Your task to perform on an android device: Search for usb-a to usb-b on bestbuy, select the first entry, and add it to the cart. Image 0: 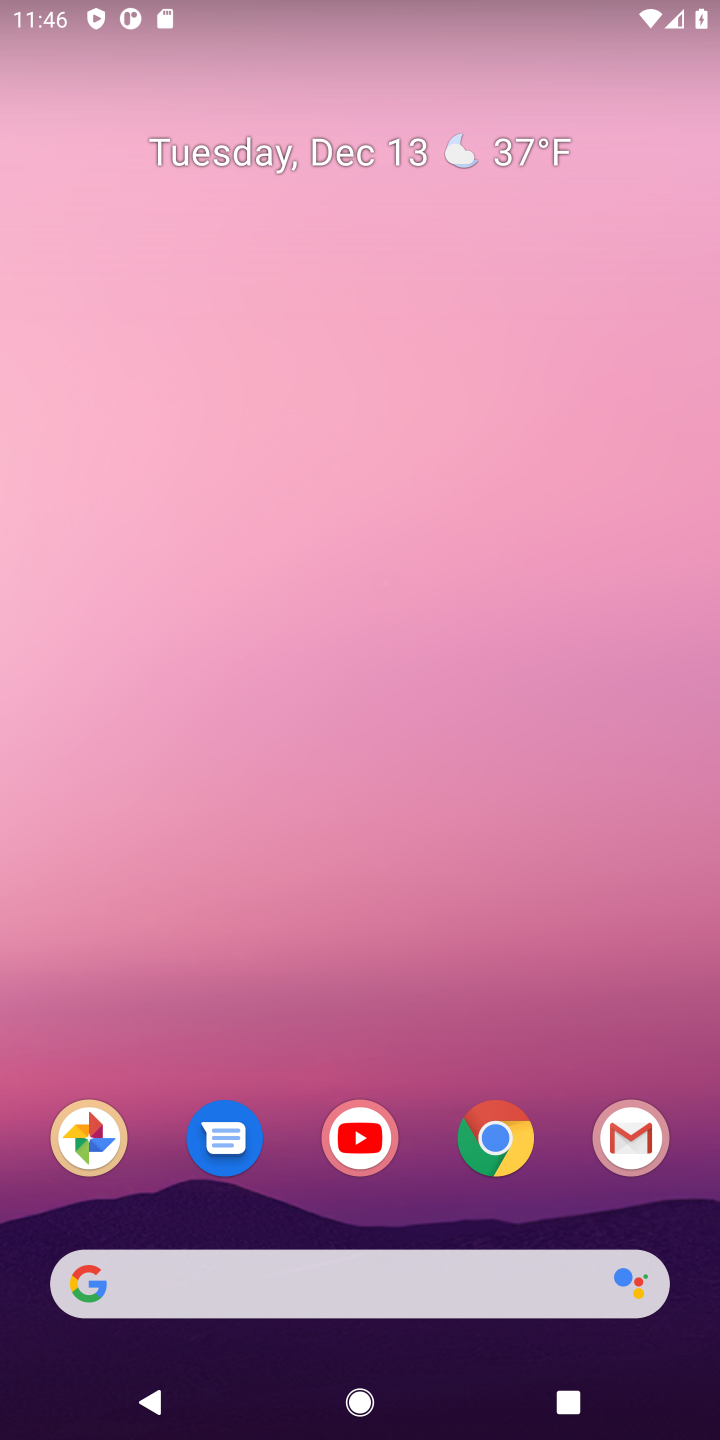
Step 0: click (466, 1141)
Your task to perform on an android device: Search for usb-a to usb-b on bestbuy, select the first entry, and add it to the cart. Image 1: 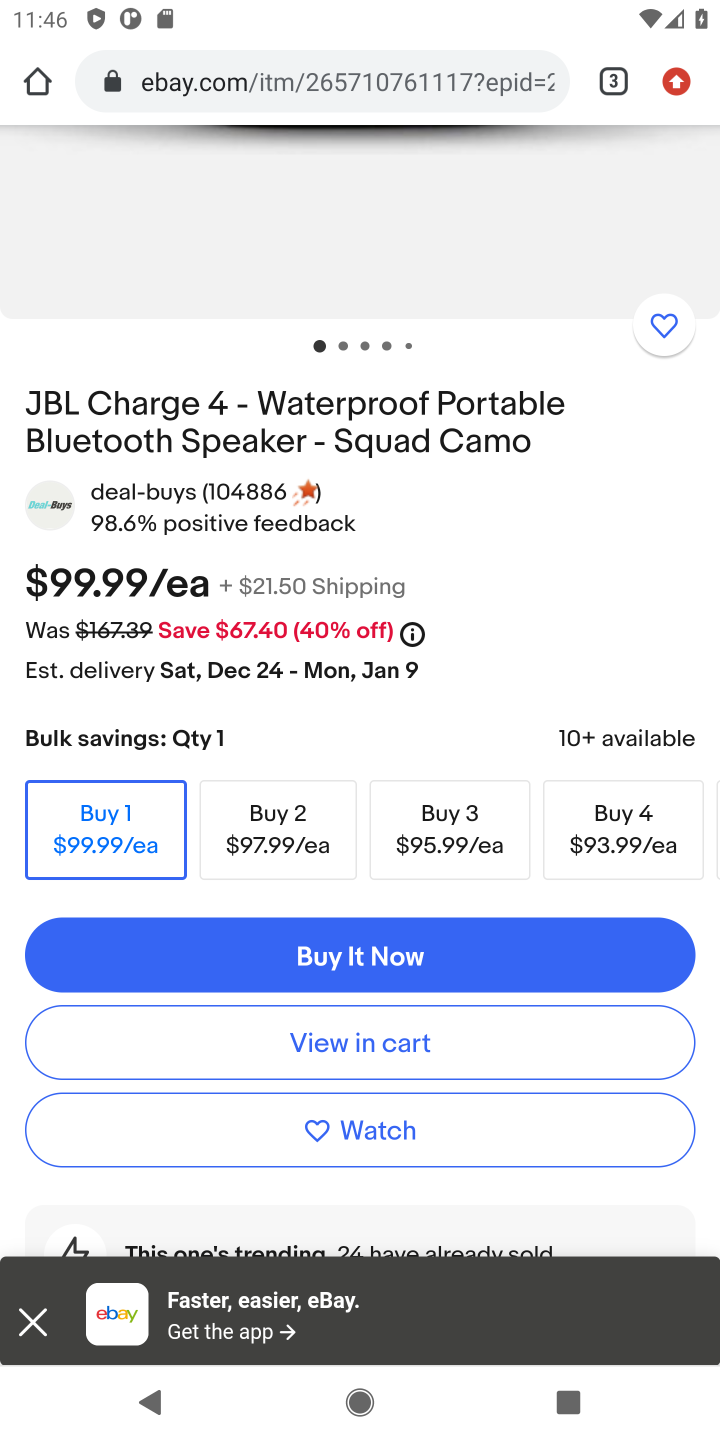
Step 1: click (614, 73)
Your task to perform on an android device: Search for usb-a to usb-b on bestbuy, select the first entry, and add it to the cart. Image 2: 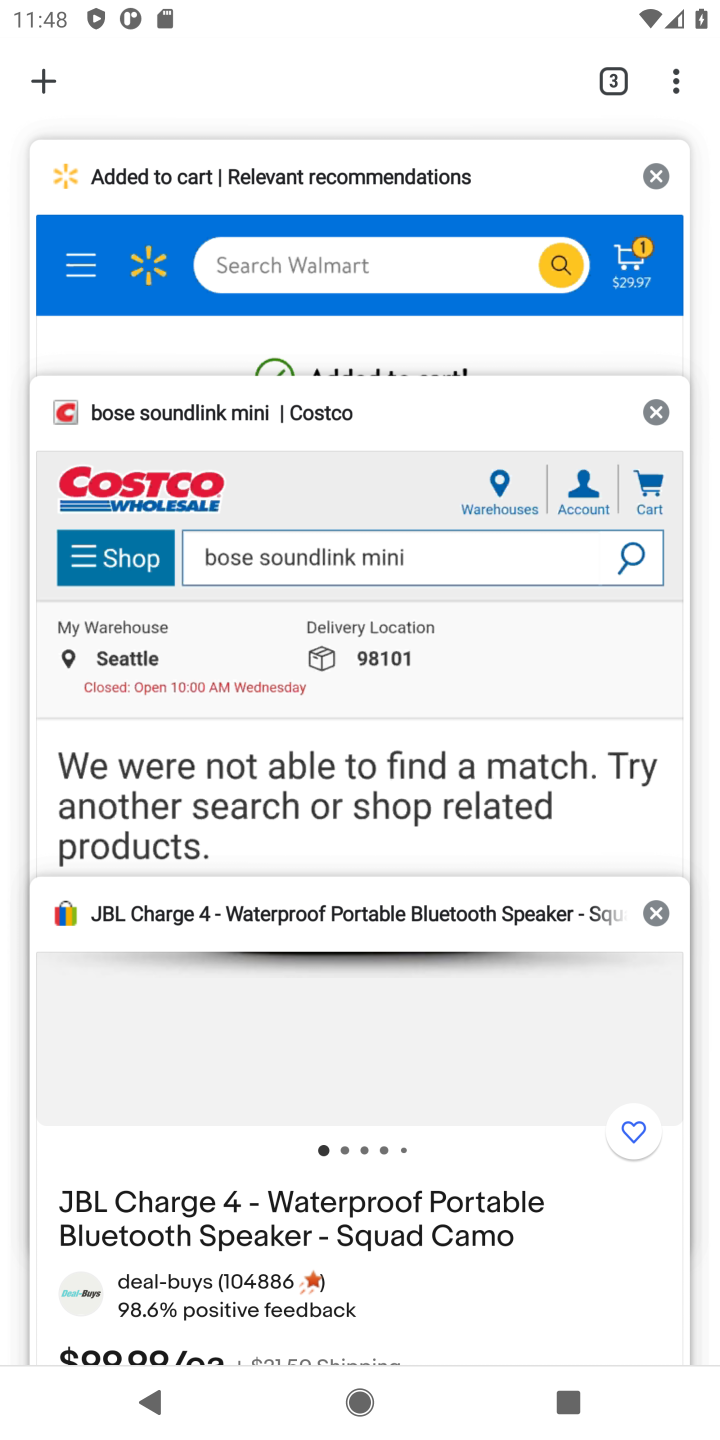
Step 2: click (43, 70)
Your task to perform on an android device: Search for usb-a to usb-b on bestbuy, select the first entry, and add it to the cart. Image 3: 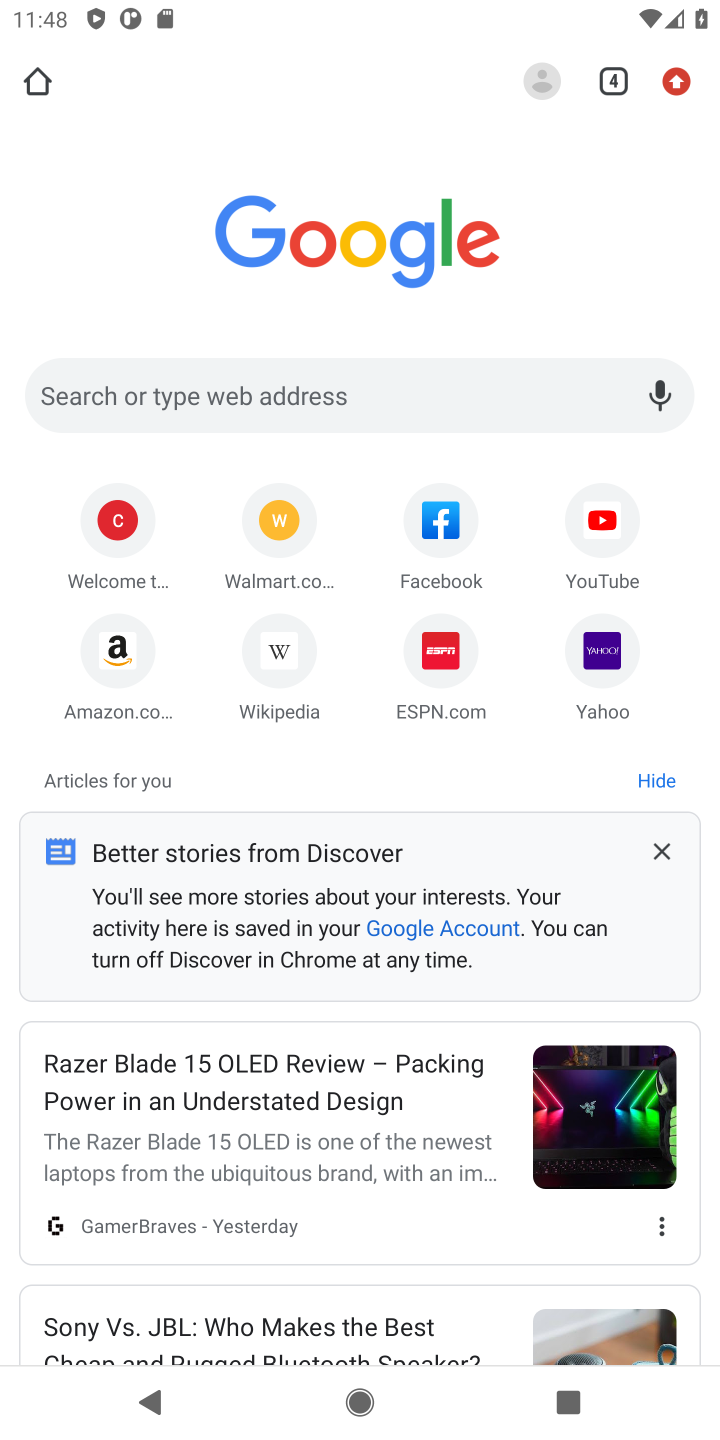
Step 3: click (236, 392)
Your task to perform on an android device: Search for usb-a to usb-b on bestbuy, select the first entry, and add it to the cart. Image 4: 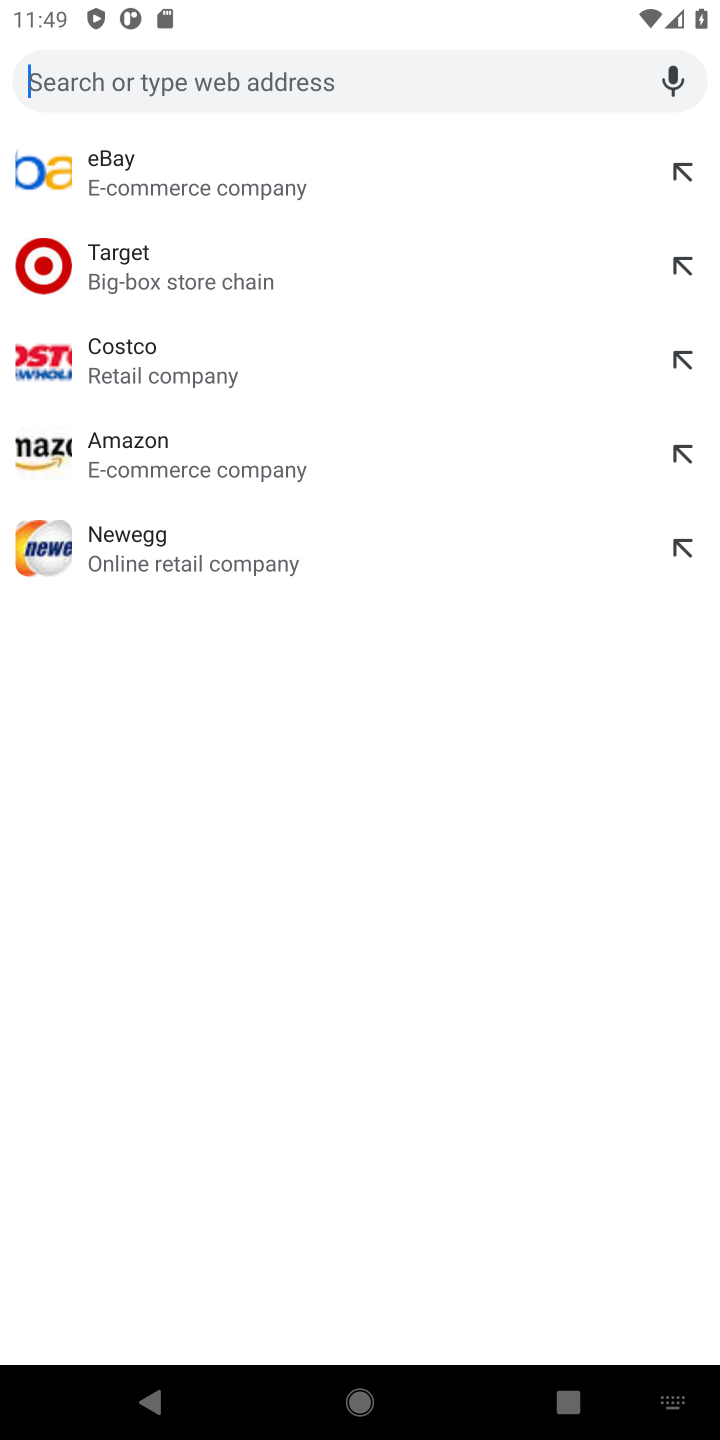
Step 4: type "bestbuy"
Your task to perform on an android device: Search for usb-a to usb-b on bestbuy, select the first entry, and add it to the cart. Image 5: 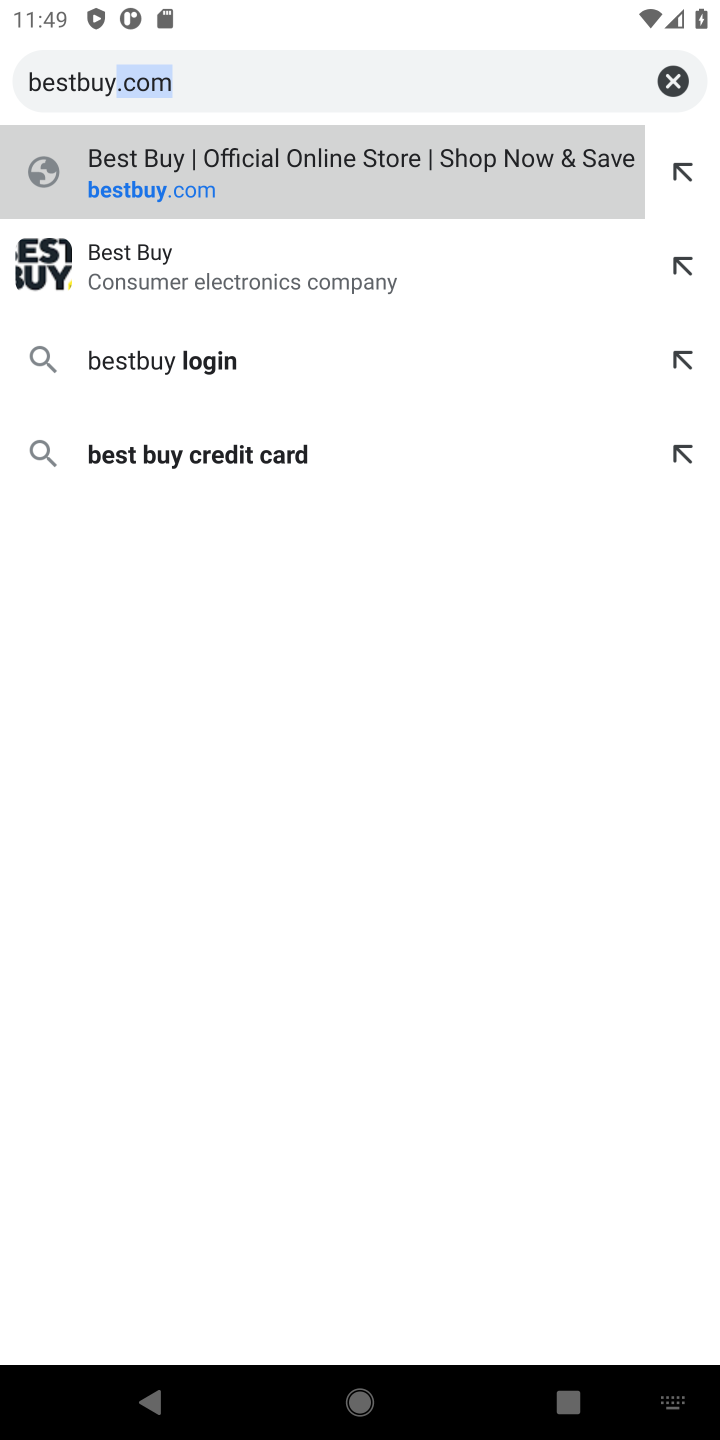
Step 5: click (349, 201)
Your task to perform on an android device: Search for usb-a to usb-b on bestbuy, select the first entry, and add it to the cart. Image 6: 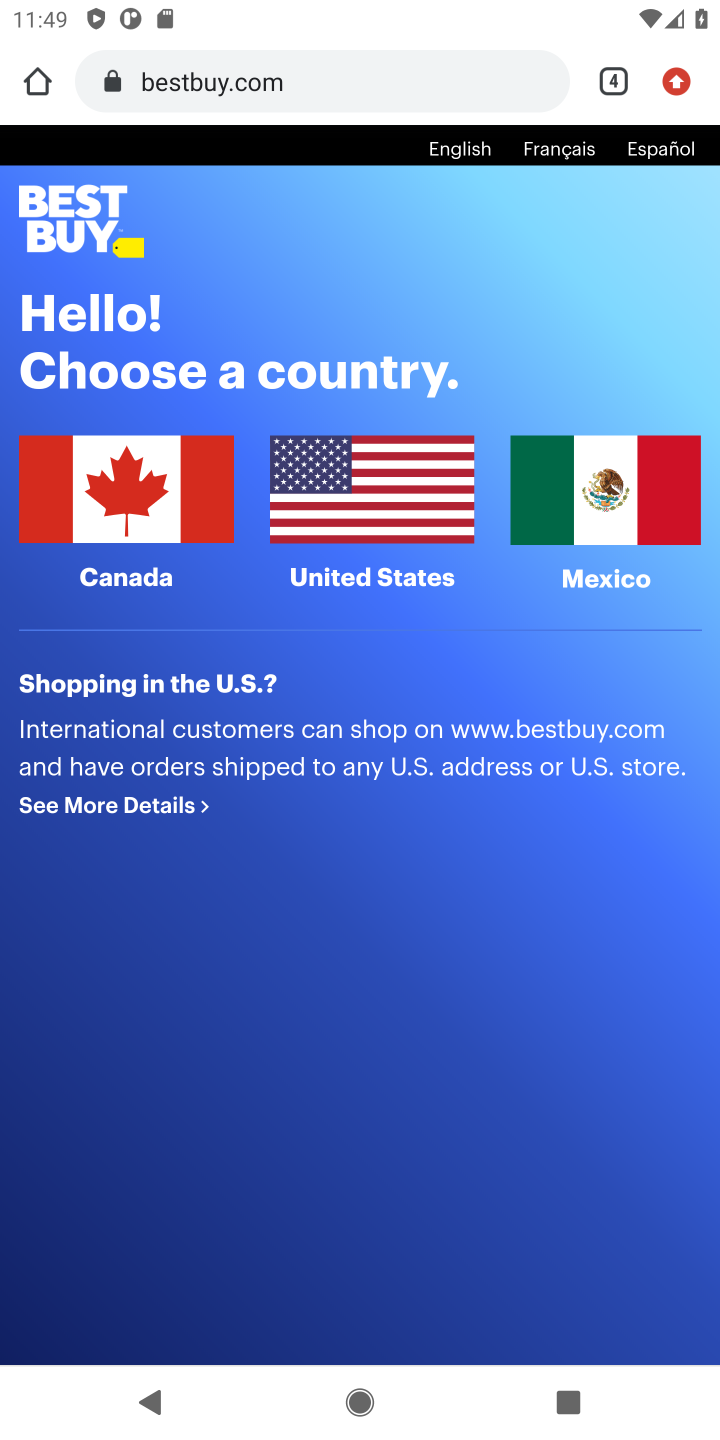
Step 6: click (337, 456)
Your task to perform on an android device: Search for usb-a to usb-b on bestbuy, select the first entry, and add it to the cart. Image 7: 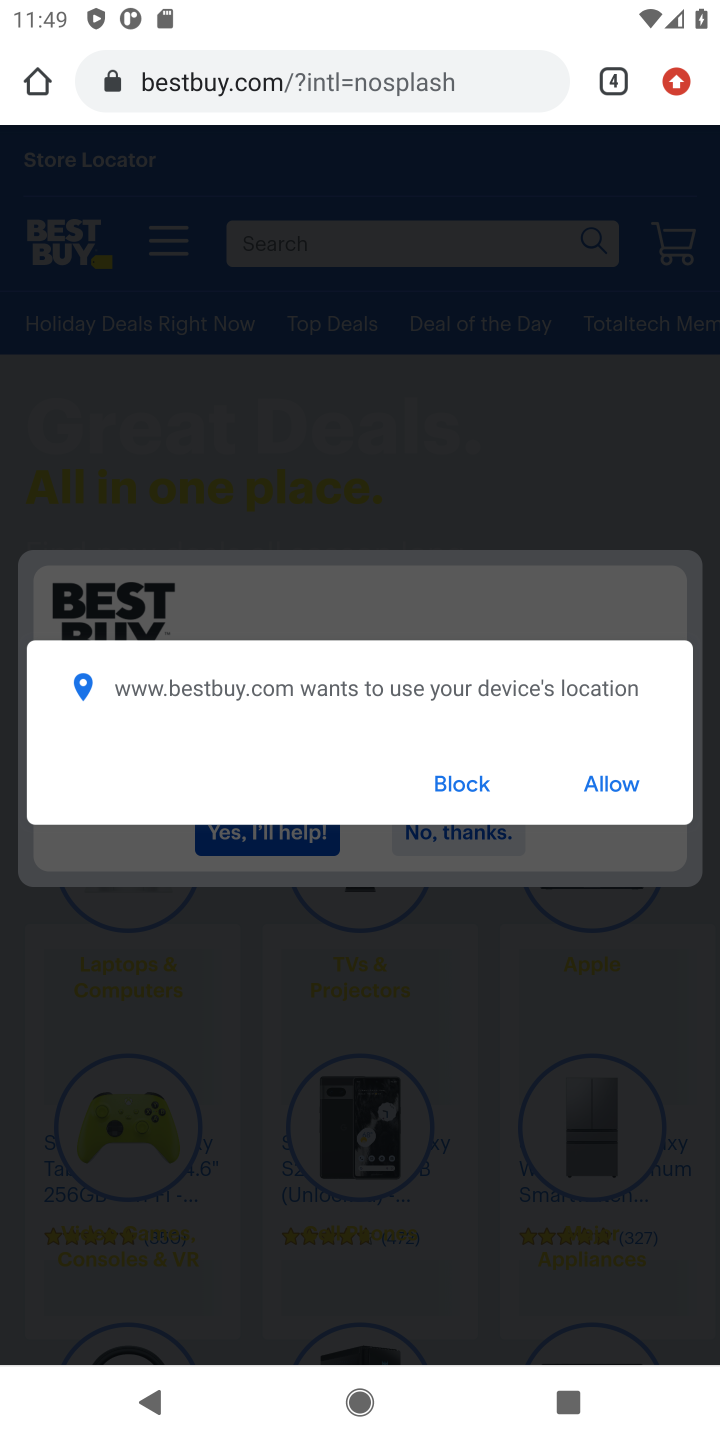
Step 7: click (467, 784)
Your task to perform on an android device: Search for usb-a to usb-b on bestbuy, select the first entry, and add it to the cart. Image 8: 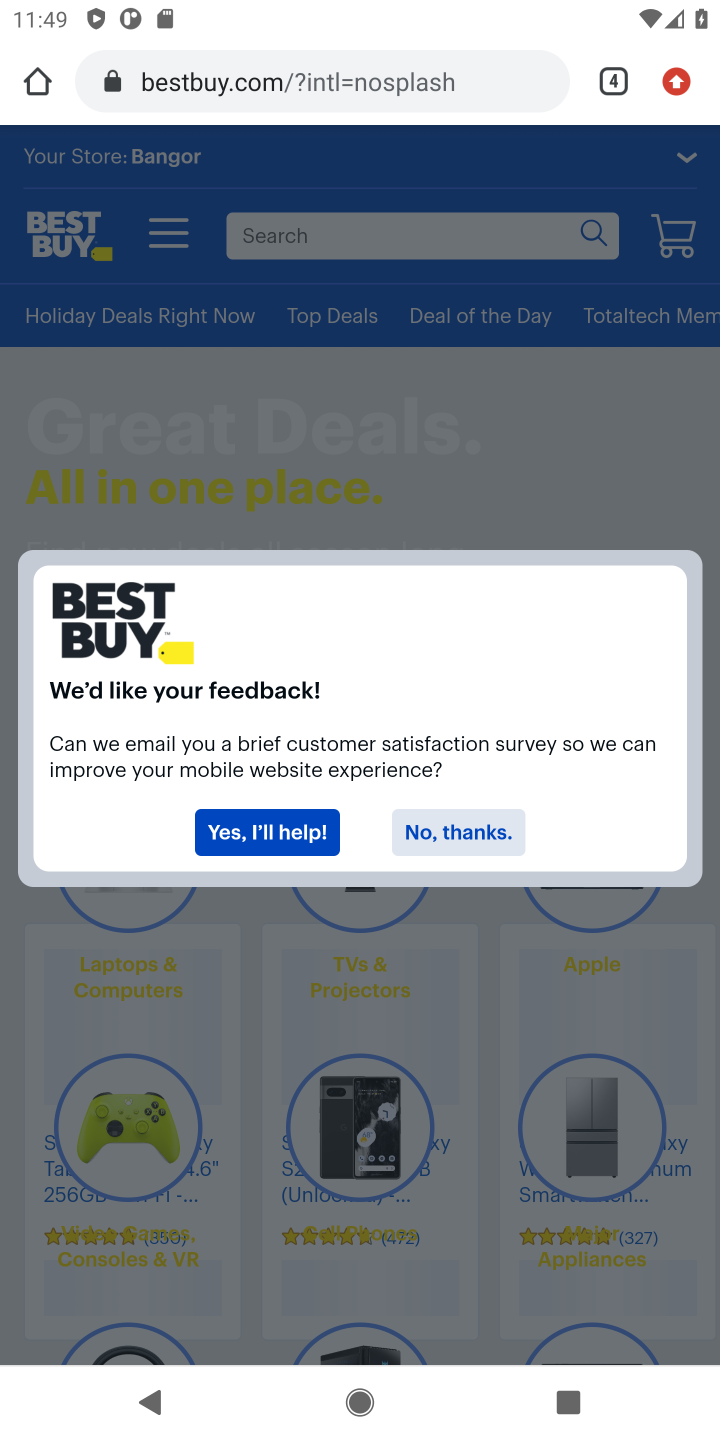
Step 8: click (411, 840)
Your task to perform on an android device: Search for usb-a to usb-b on bestbuy, select the first entry, and add it to the cart. Image 9: 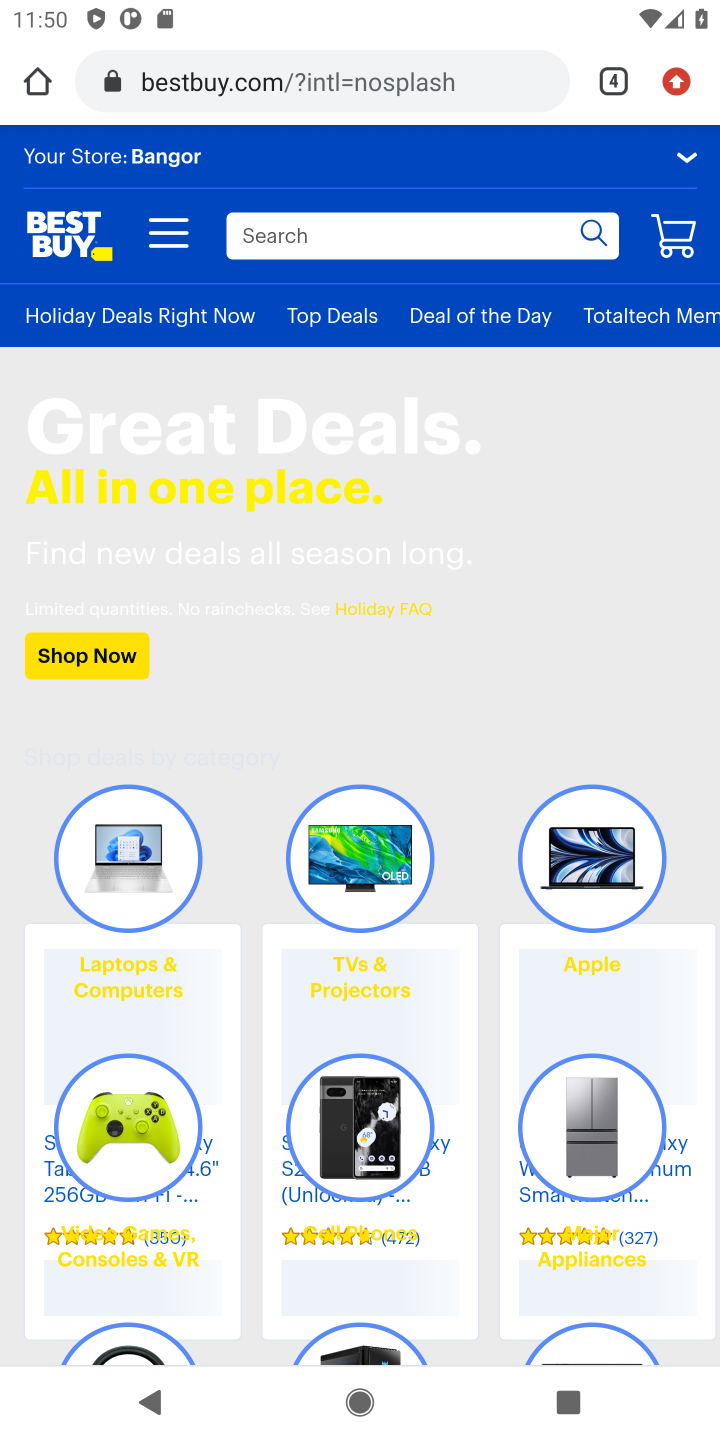
Step 9: click (264, 233)
Your task to perform on an android device: Search for usb-a to usb-b on bestbuy, select the first entry, and add it to the cart. Image 10: 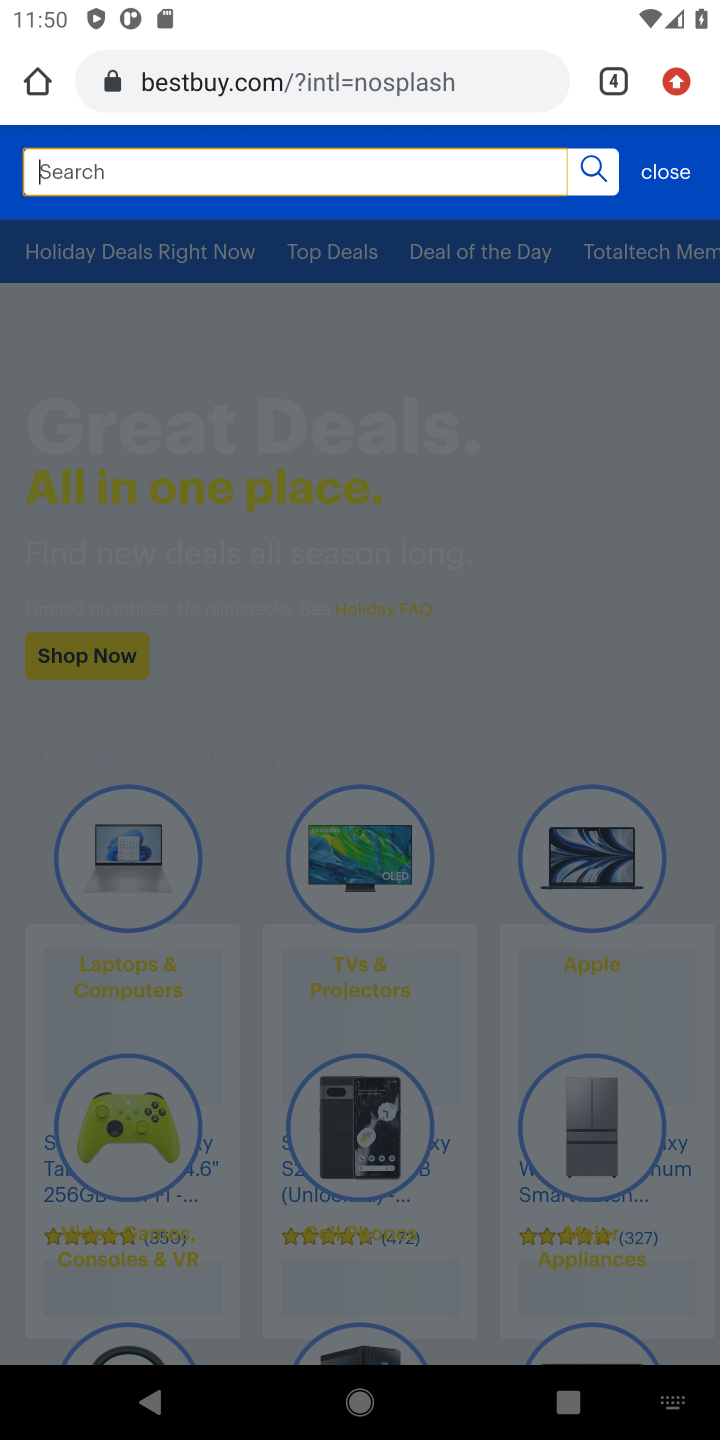
Step 10: type " usb-a to usb-b"
Your task to perform on an android device: Search for usb-a to usb-b on bestbuy, select the first entry, and add it to the cart. Image 11: 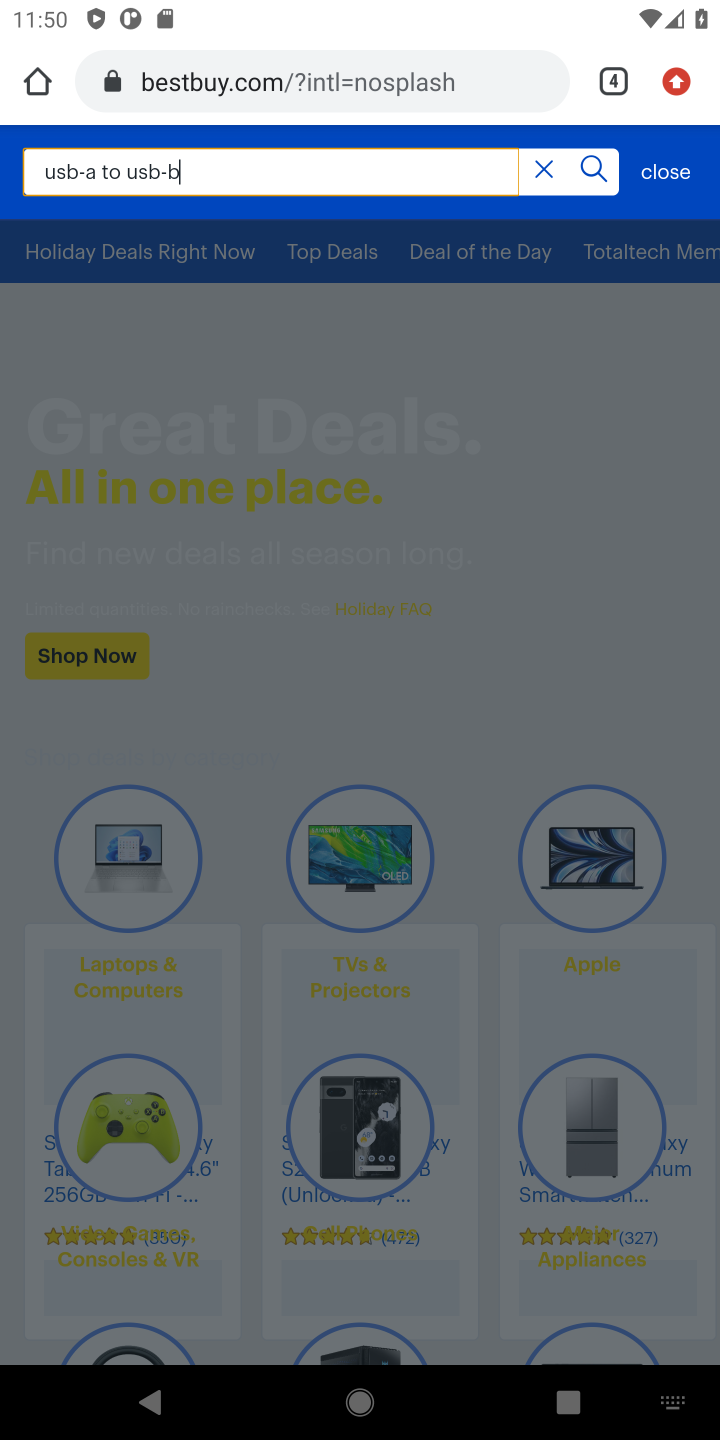
Step 11: press enter
Your task to perform on an android device: Search for usb-a to usb-b on bestbuy, select the first entry, and add it to the cart. Image 12: 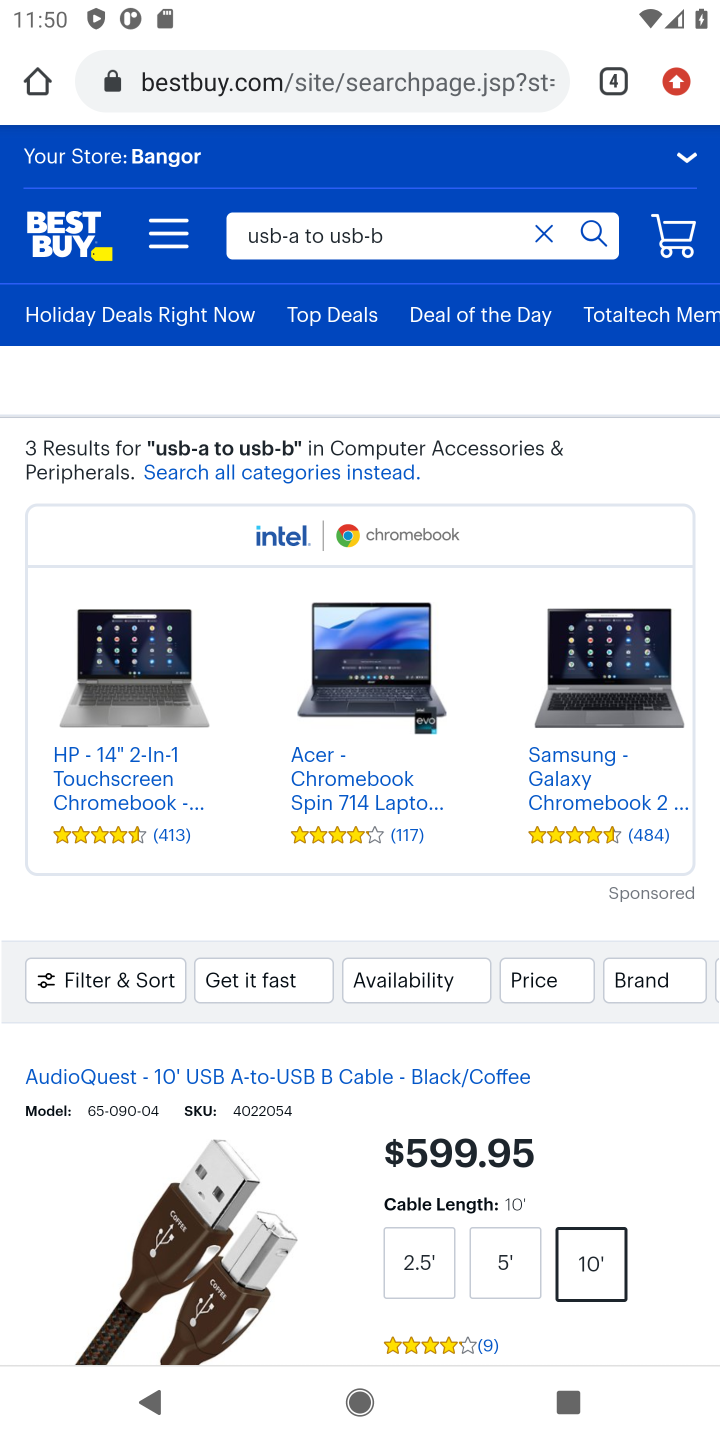
Step 12: click (560, 1147)
Your task to perform on an android device: Search for usb-a to usb-b on bestbuy, select the first entry, and add it to the cart. Image 13: 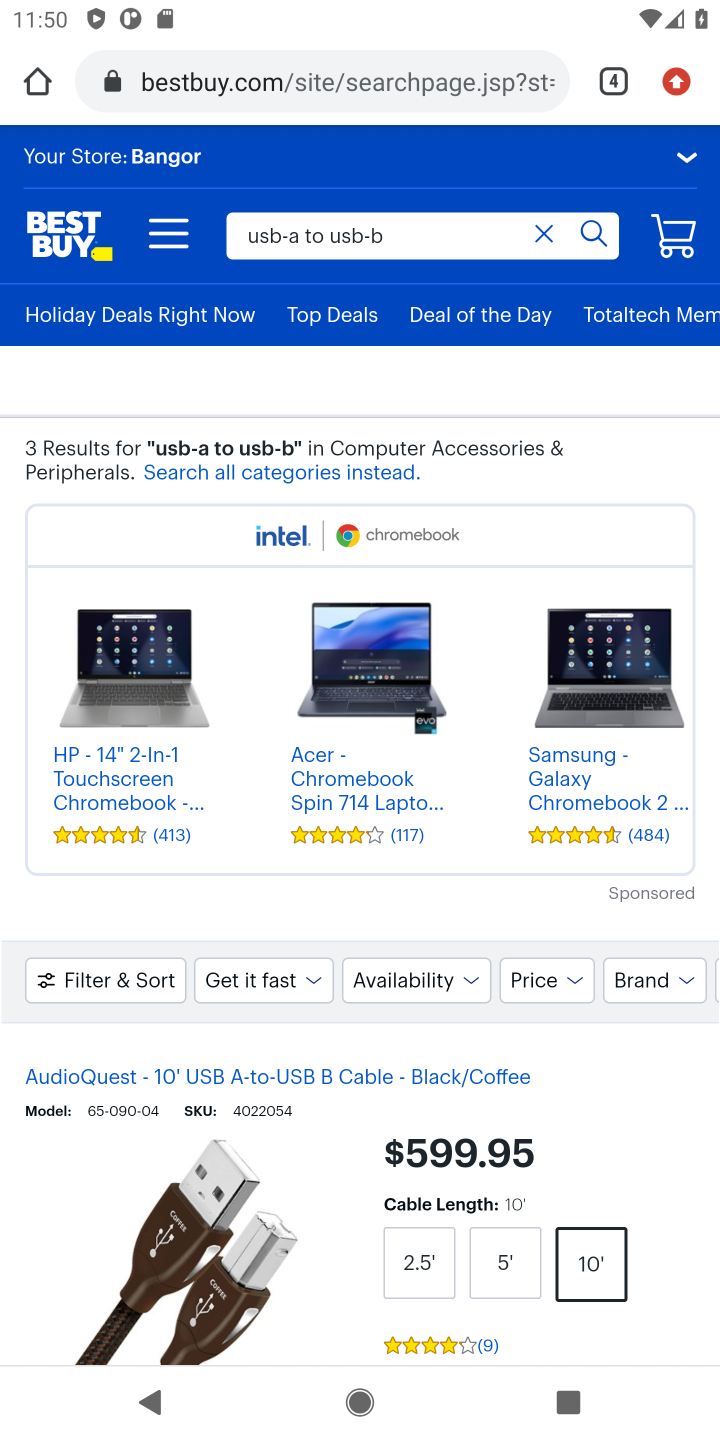
Step 13: drag from (560, 1147) to (647, 581)
Your task to perform on an android device: Search for usb-a to usb-b on bestbuy, select the first entry, and add it to the cart. Image 14: 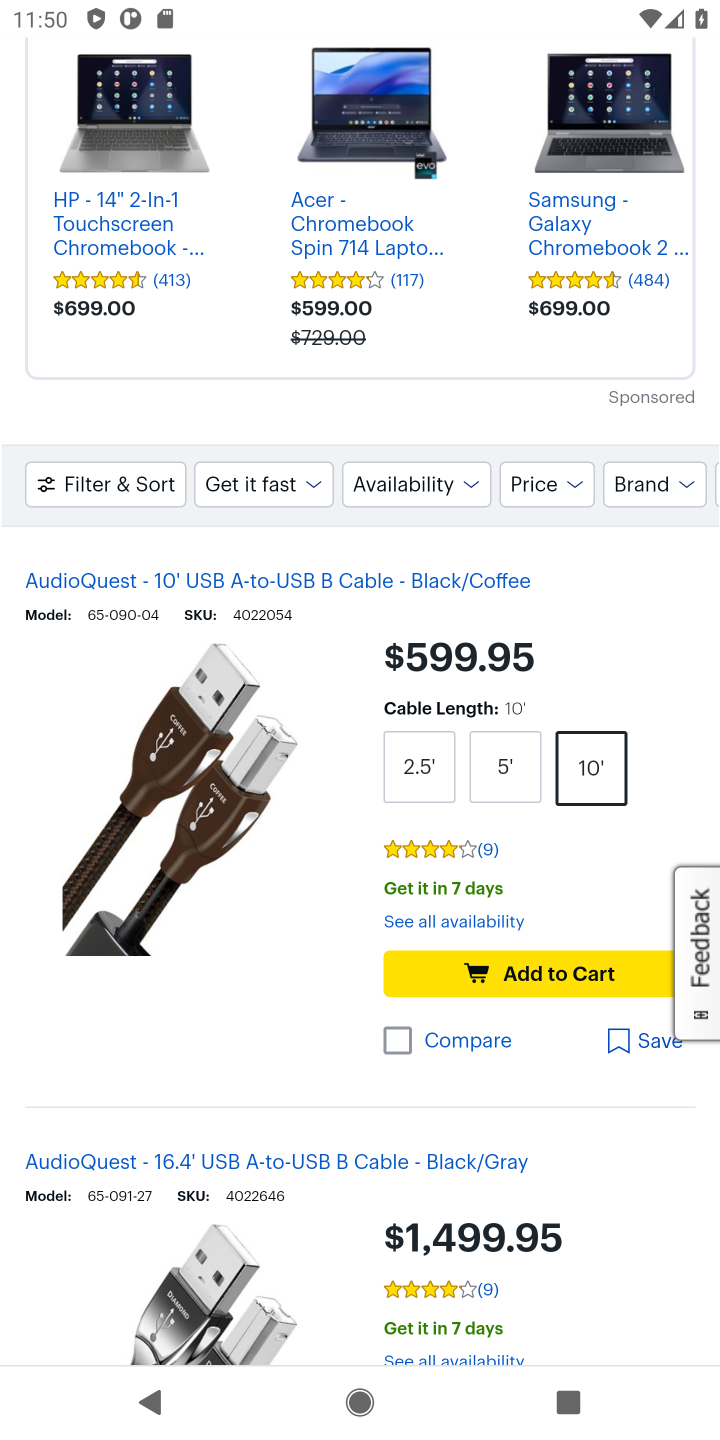
Step 14: click (489, 972)
Your task to perform on an android device: Search for usb-a to usb-b on bestbuy, select the first entry, and add it to the cart. Image 15: 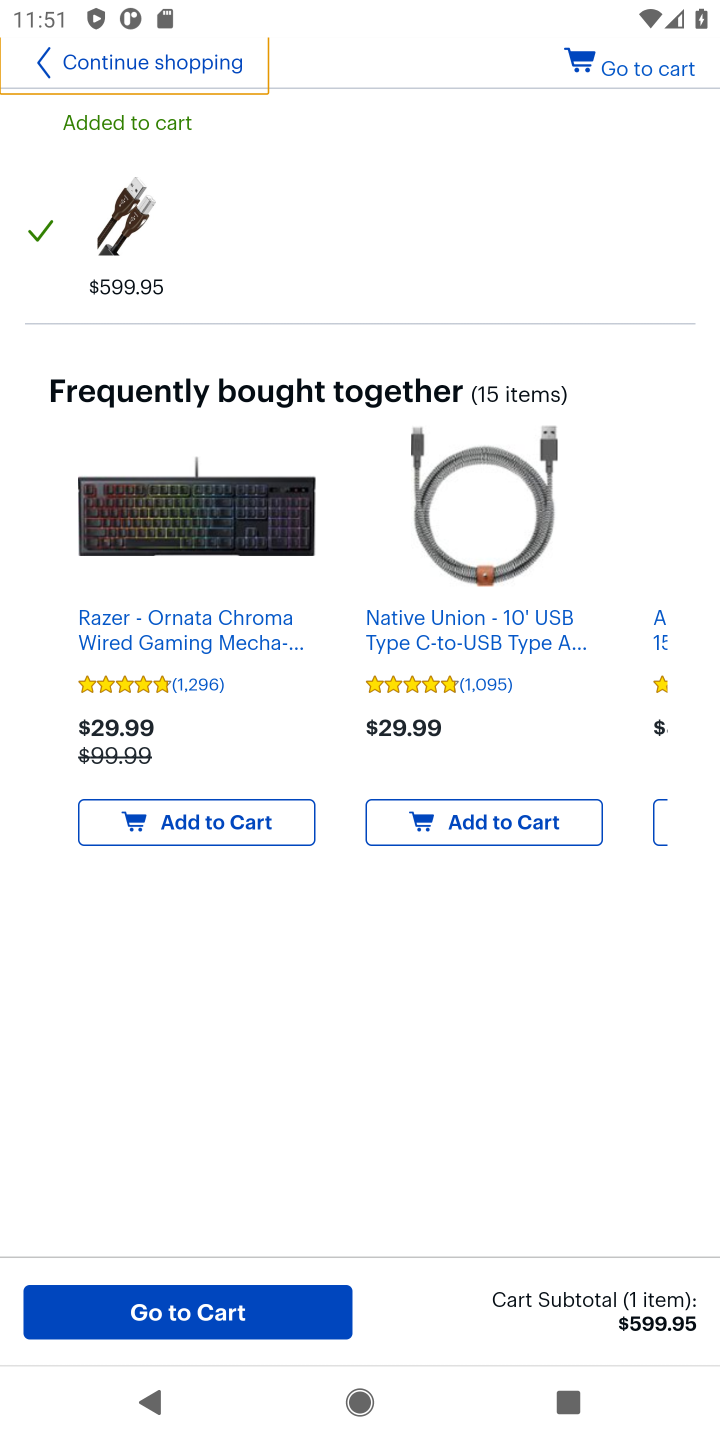
Step 15: task complete